Your task to perform on an android device: Is it going to rain tomorrow? Image 0: 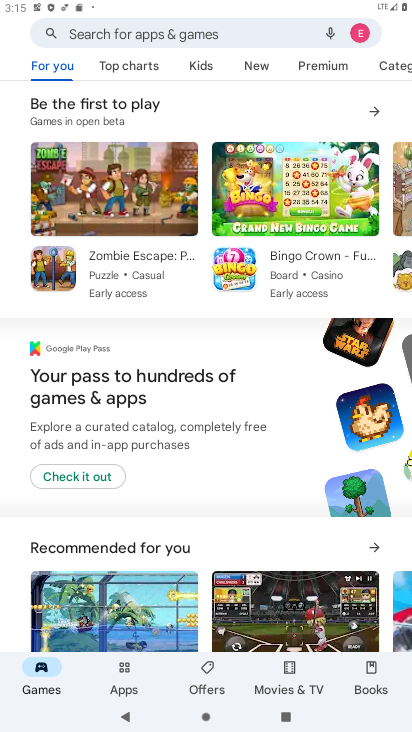
Step 0: press home button
Your task to perform on an android device: Is it going to rain tomorrow? Image 1: 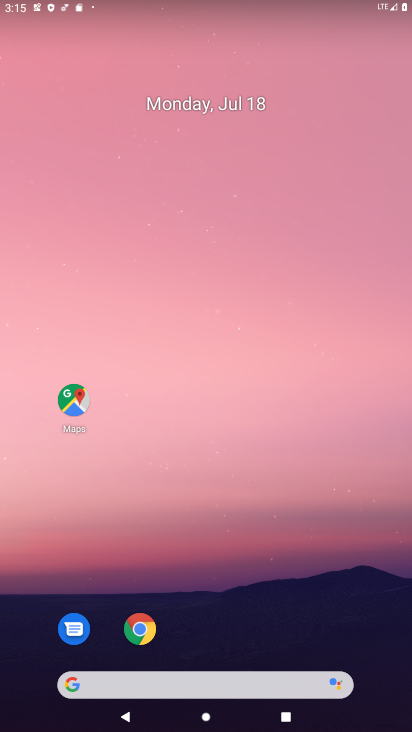
Step 1: drag from (226, 613) to (237, 136)
Your task to perform on an android device: Is it going to rain tomorrow? Image 2: 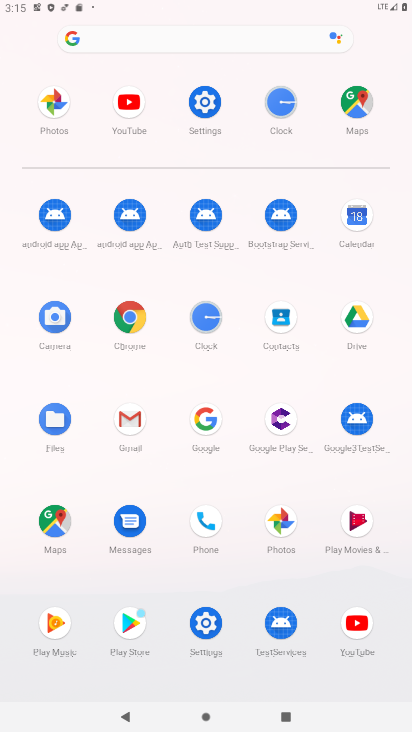
Step 2: click (196, 34)
Your task to perform on an android device: Is it going to rain tomorrow? Image 3: 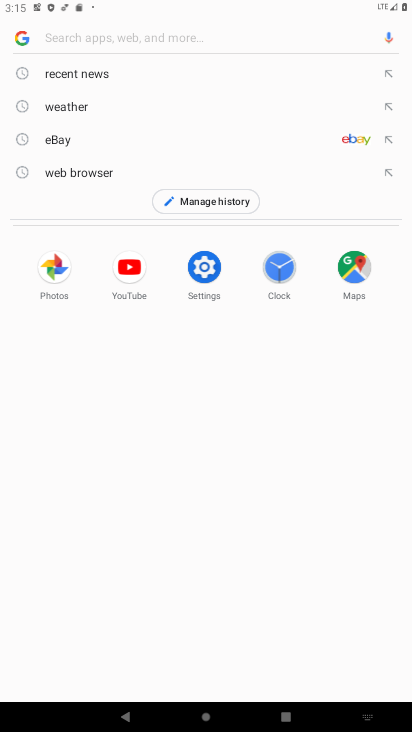
Step 3: type "weather"
Your task to perform on an android device: Is it going to rain tomorrow? Image 4: 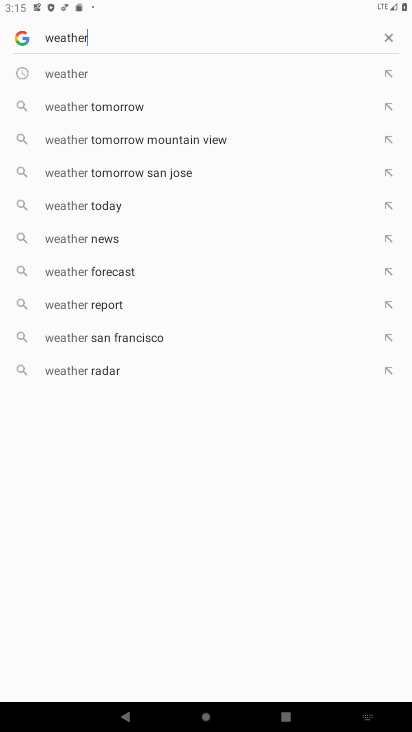
Step 4: click (84, 104)
Your task to perform on an android device: Is it going to rain tomorrow? Image 5: 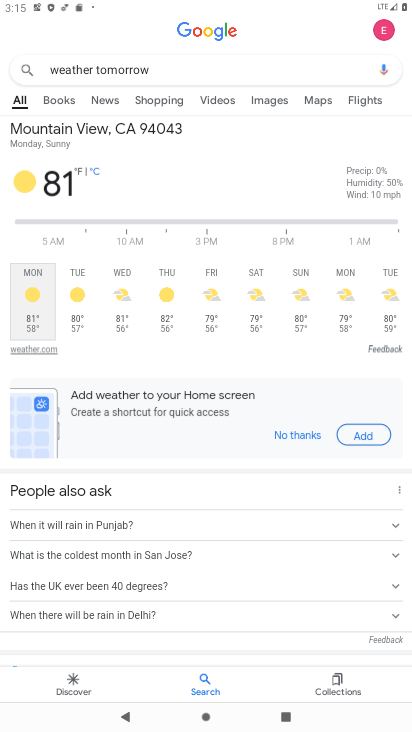
Step 5: task complete